Your task to perform on an android device: clear all cookies in the chrome app Image 0: 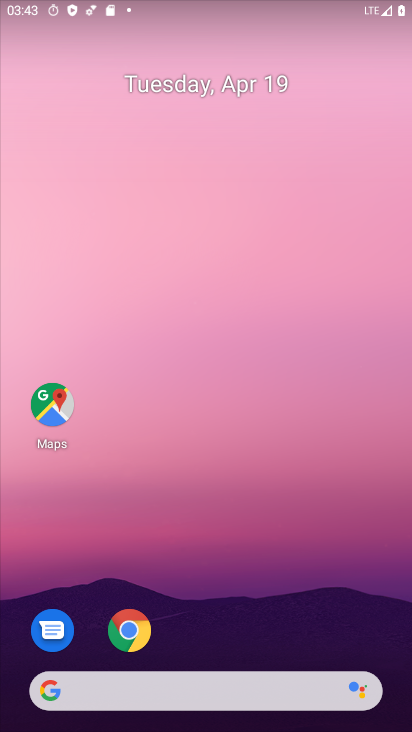
Step 0: click (139, 637)
Your task to perform on an android device: clear all cookies in the chrome app Image 1: 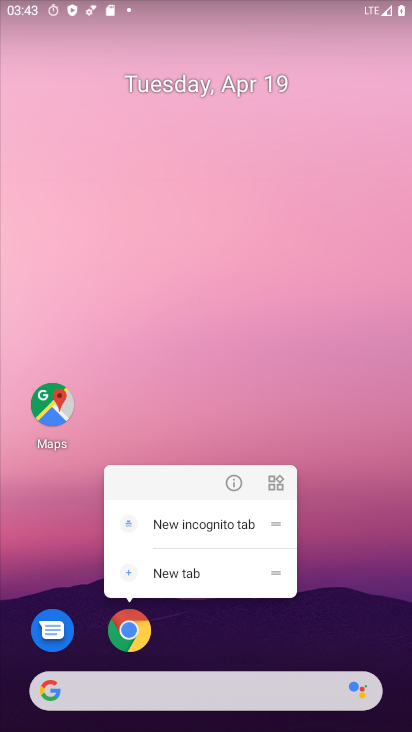
Step 1: click (138, 633)
Your task to perform on an android device: clear all cookies in the chrome app Image 2: 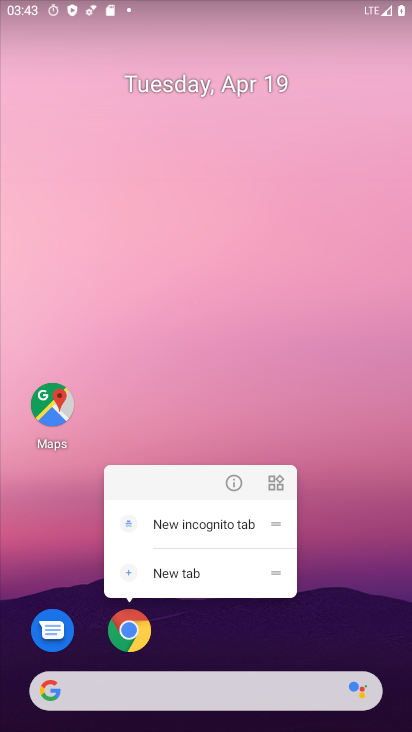
Step 2: click (136, 629)
Your task to perform on an android device: clear all cookies in the chrome app Image 3: 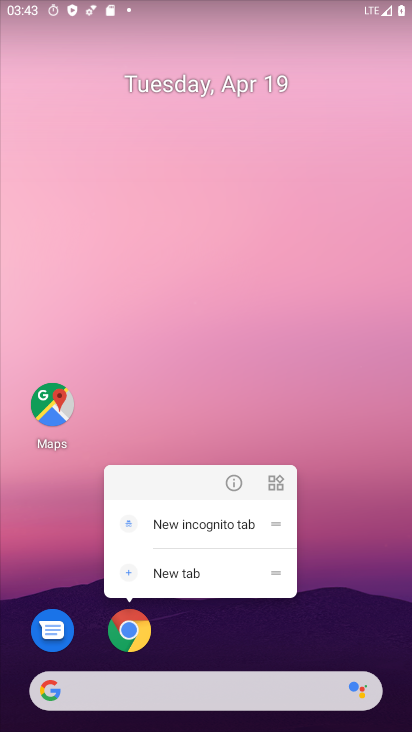
Step 3: click (134, 627)
Your task to perform on an android device: clear all cookies in the chrome app Image 4: 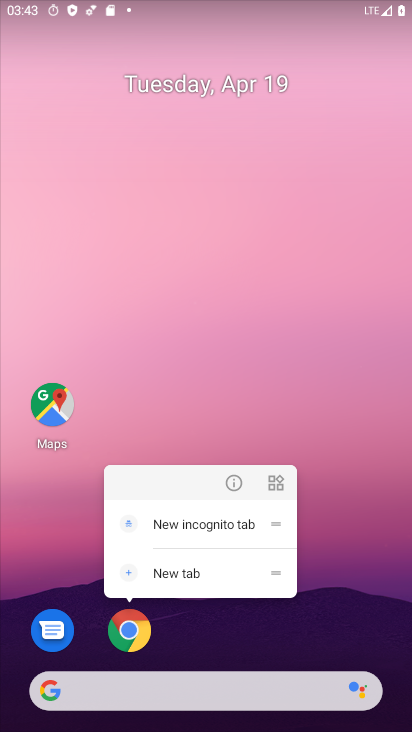
Step 4: click (129, 634)
Your task to perform on an android device: clear all cookies in the chrome app Image 5: 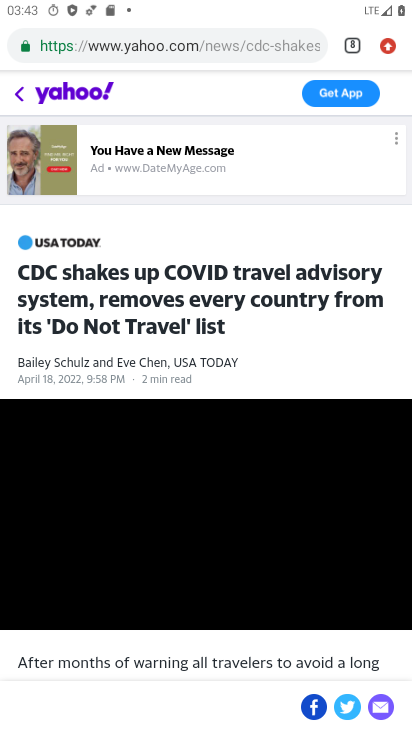
Step 5: click (388, 48)
Your task to perform on an android device: clear all cookies in the chrome app Image 6: 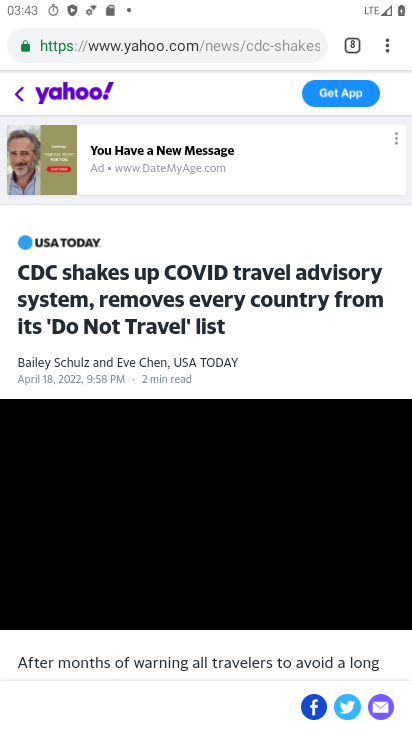
Step 6: click (390, 46)
Your task to perform on an android device: clear all cookies in the chrome app Image 7: 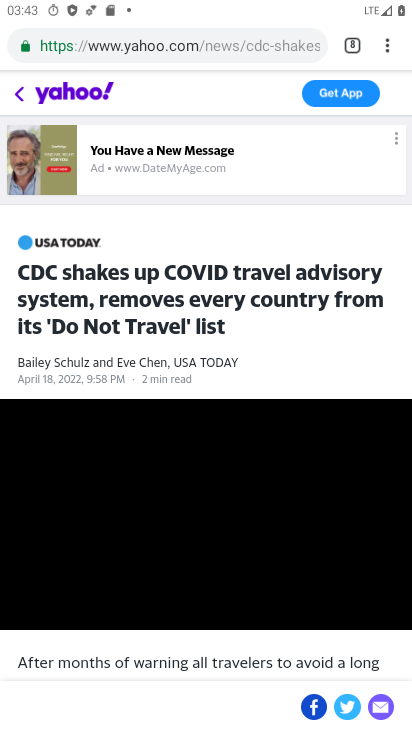
Step 7: click (390, 46)
Your task to perform on an android device: clear all cookies in the chrome app Image 8: 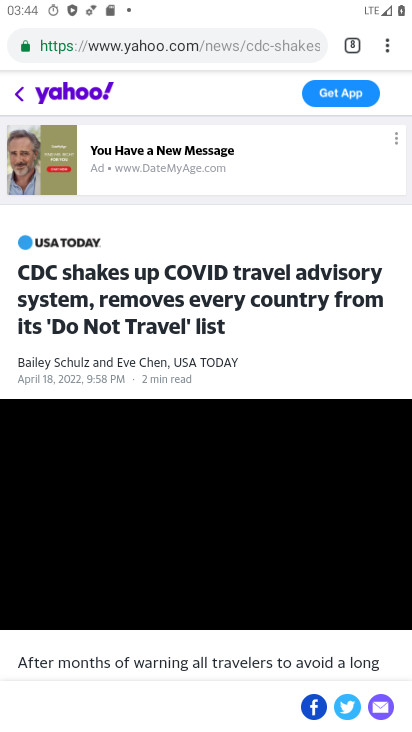
Step 8: click (381, 31)
Your task to perform on an android device: clear all cookies in the chrome app Image 9: 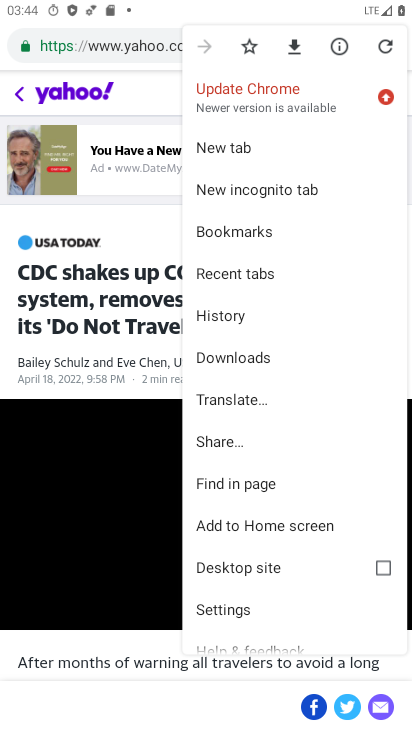
Step 9: click (208, 615)
Your task to perform on an android device: clear all cookies in the chrome app Image 10: 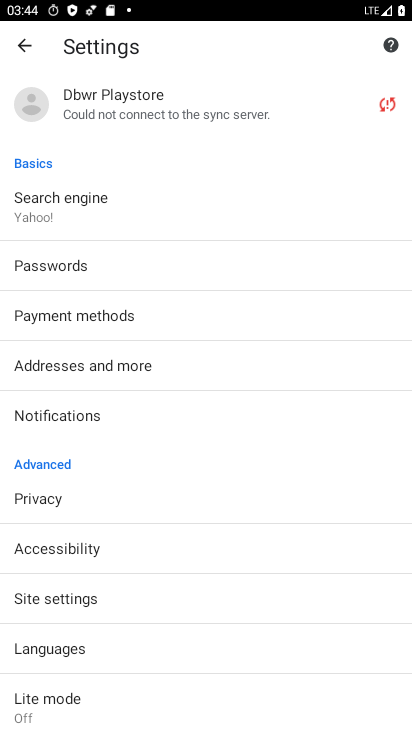
Step 10: click (80, 598)
Your task to perform on an android device: clear all cookies in the chrome app Image 11: 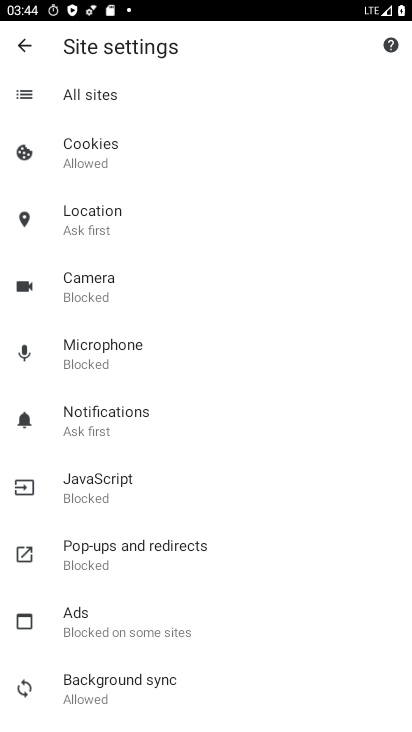
Step 11: drag from (95, 553) to (79, 513)
Your task to perform on an android device: clear all cookies in the chrome app Image 12: 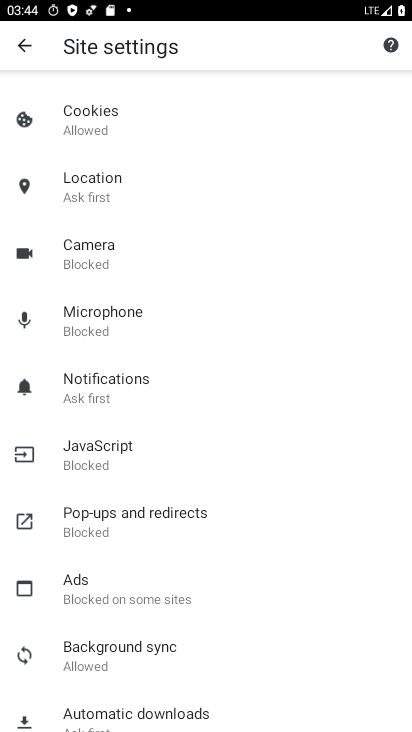
Step 12: click (84, 115)
Your task to perform on an android device: clear all cookies in the chrome app Image 13: 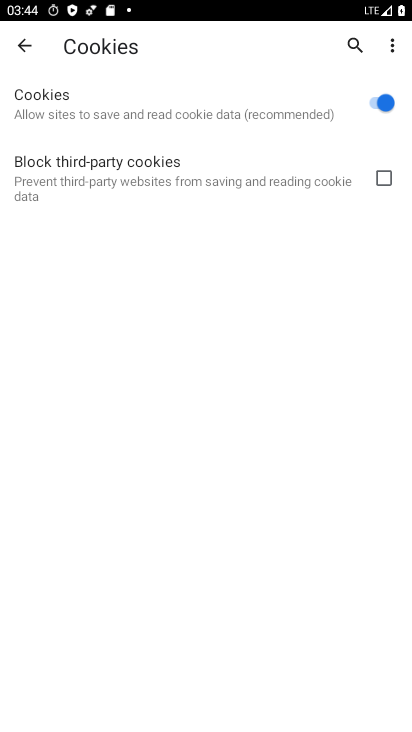
Step 13: click (398, 43)
Your task to perform on an android device: clear all cookies in the chrome app Image 14: 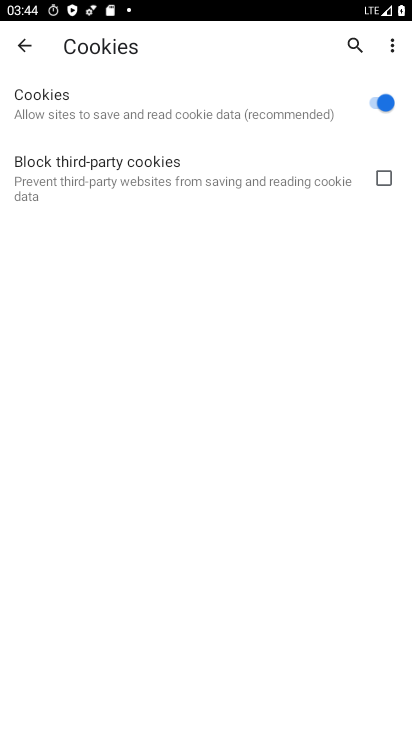
Step 14: click (391, 45)
Your task to perform on an android device: clear all cookies in the chrome app Image 15: 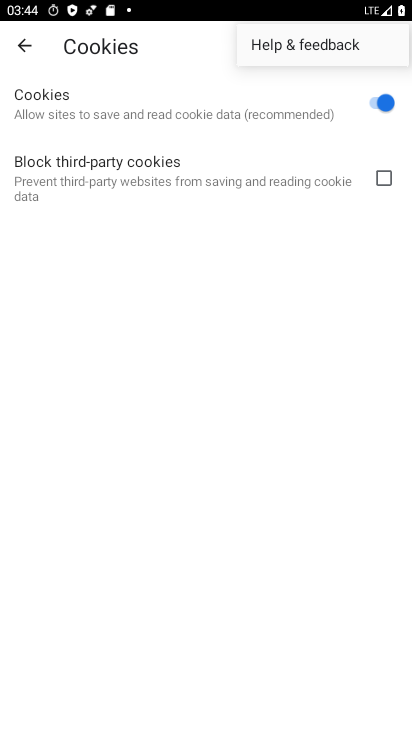
Step 15: click (264, 111)
Your task to perform on an android device: clear all cookies in the chrome app Image 16: 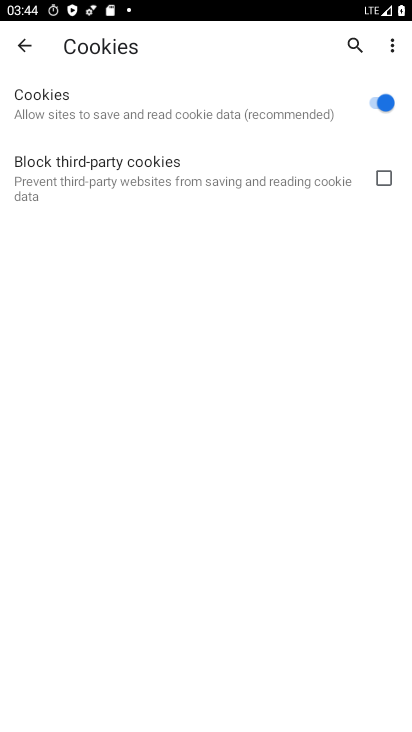
Step 16: task complete